Your task to perform on an android device: turn off smart reply in the gmail app Image 0: 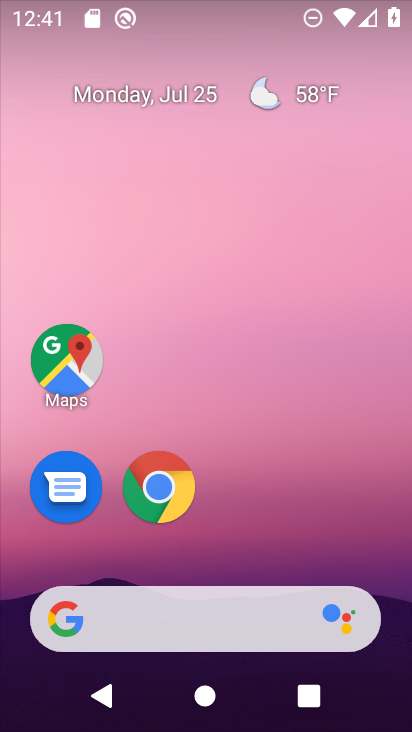
Step 0: drag from (226, 502) to (244, 46)
Your task to perform on an android device: turn off smart reply in the gmail app Image 1: 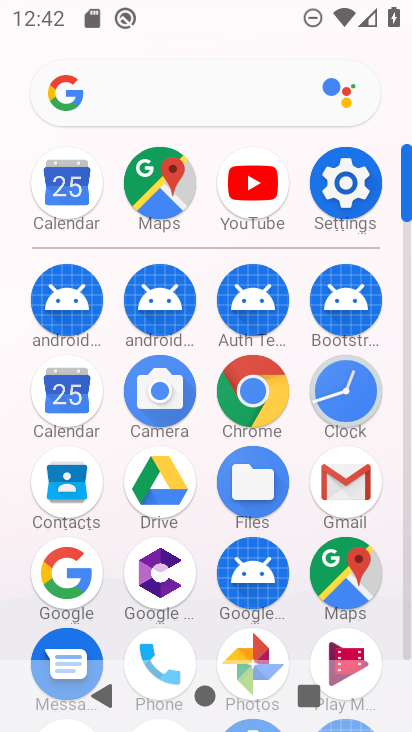
Step 1: click (339, 479)
Your task to perform on an android device: turn off smart reply in the gmail app Image 2: 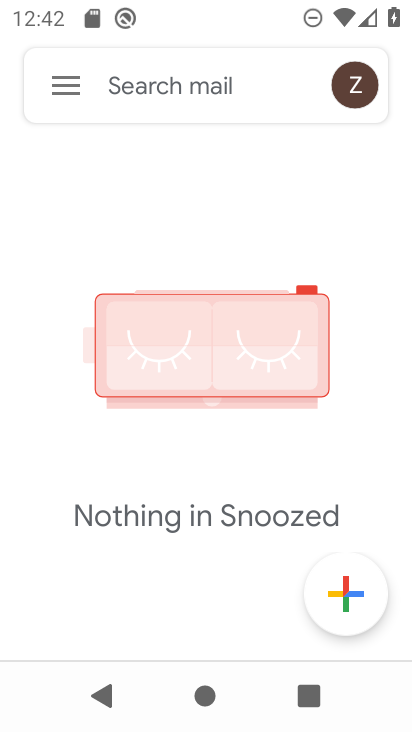
Step 2: click (61, 89)
Your task to perform on an android device: turn off smart reply in the gmail app Image 3: 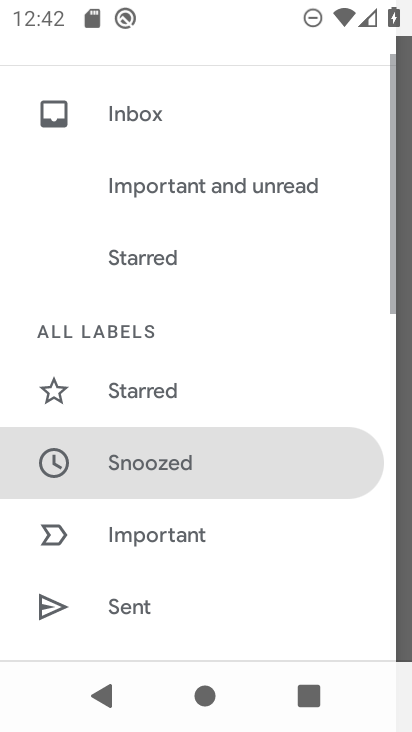
Step 3: drag from (151, 622) to (237, 45)
Your task to perform on an android device: turn off smart reply in the gmail app Image 4: 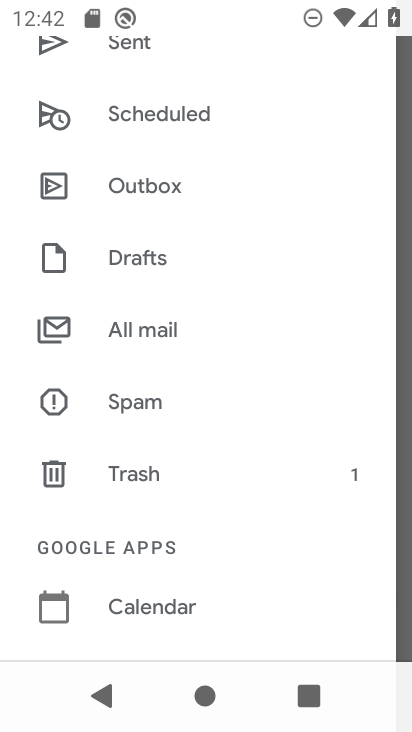
Step 4: drag from (179, 580) to (295, 124)
Your task to perform on an android device: turn off smart reply in the gmail app Image 5: 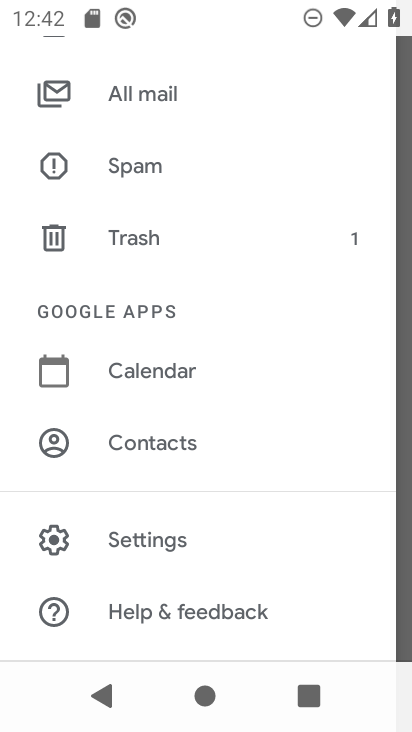
Step 5: click (147, 530)
Your task to perform on an android device: turn off smart reply in the gmail app Image 6: 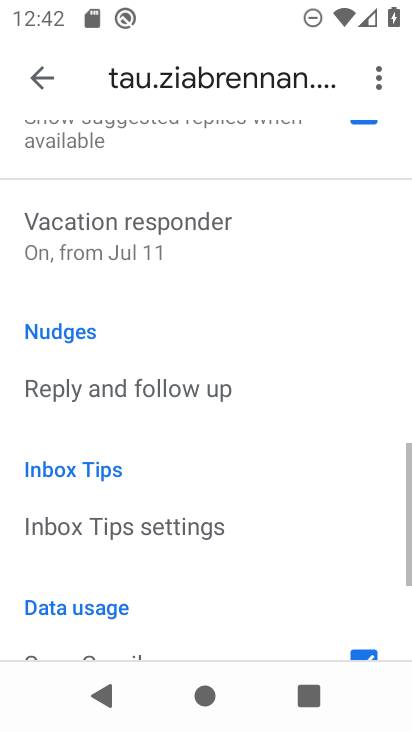
Step 6: drag from (174, 537) to (278, 21)
Your task to perform on an android device: turn off smart reply in the gmail app Image 7: 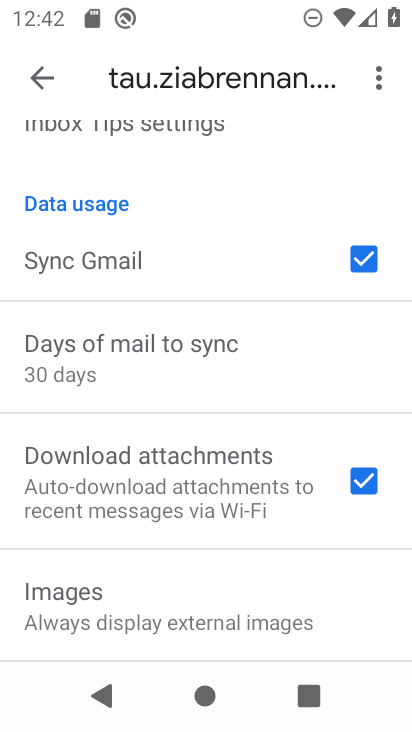
Step 7: drag from (176, 570) to (187, 698)
Your task to perform on an android device: turn off smart reply in the gmail app Image 8: 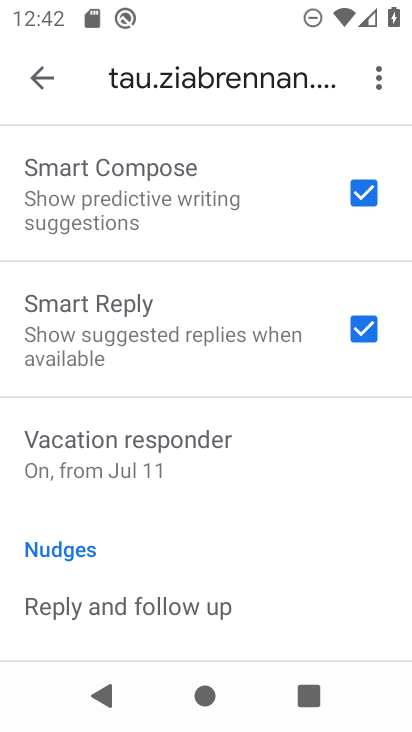
Step 8: click (357, 323)
Your task to perform on an android device: turn off smart reply in the gmail app Image 9: 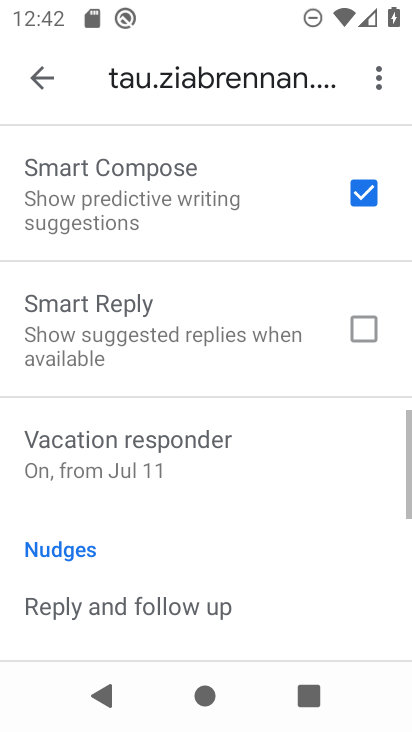
Step 9: task complete